Your task to perform on an android device: change the clock style Image 0: 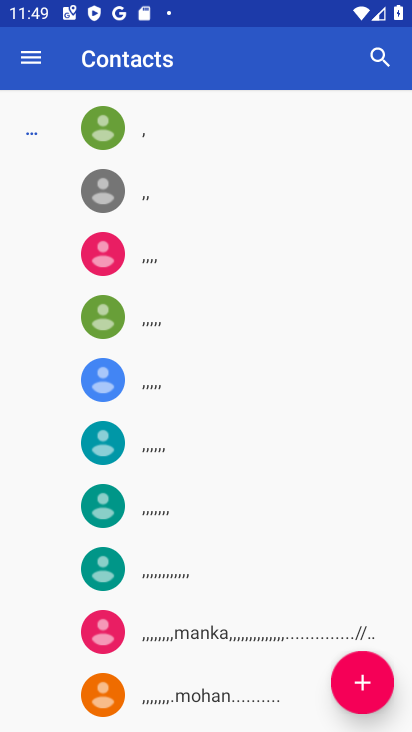
Step 0: press home button
Your task to perform on an android device: change the clock style Image 1: 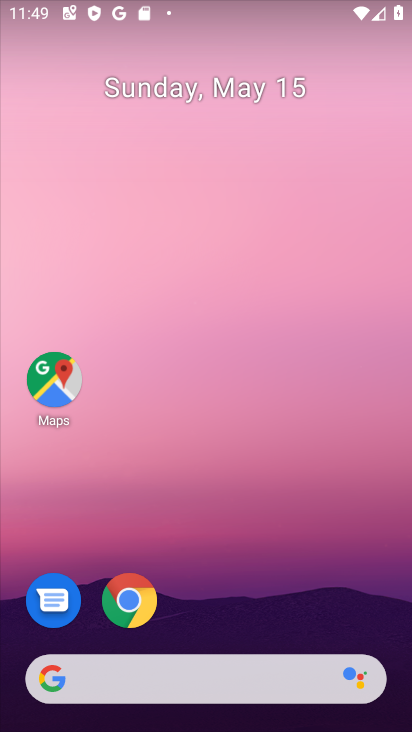
Step 1: drag from (179, 667) to (207, 91)
Your task to perform on an android device: change the clock style Image 2: 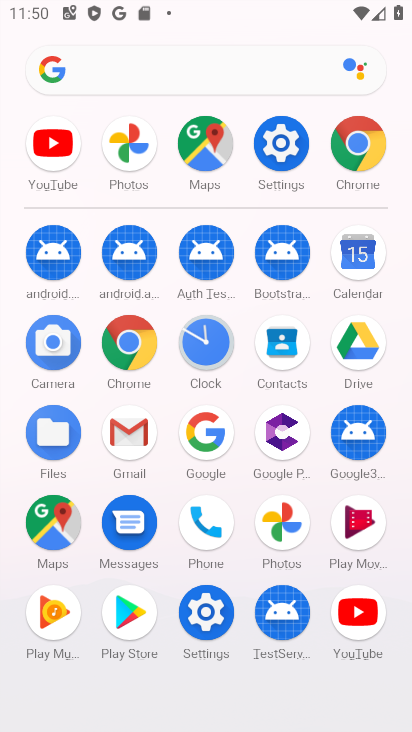
Step 2: click (204, 346)
Your task to perform on an android device: change the clock style Image 3: 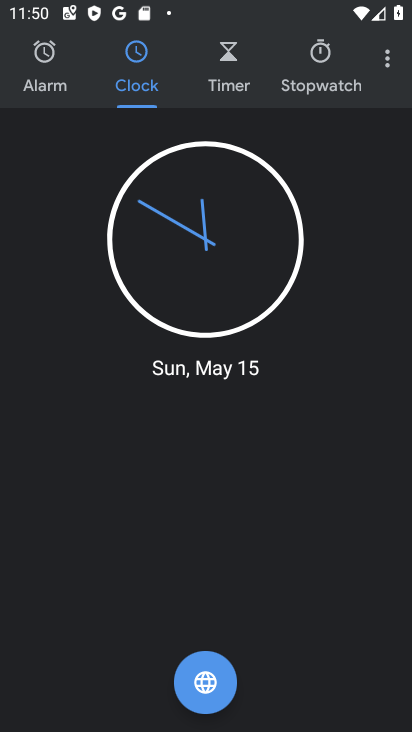
Step 3: click (382, 66)
Your task to perform on an android device: change the clock style Image 4: 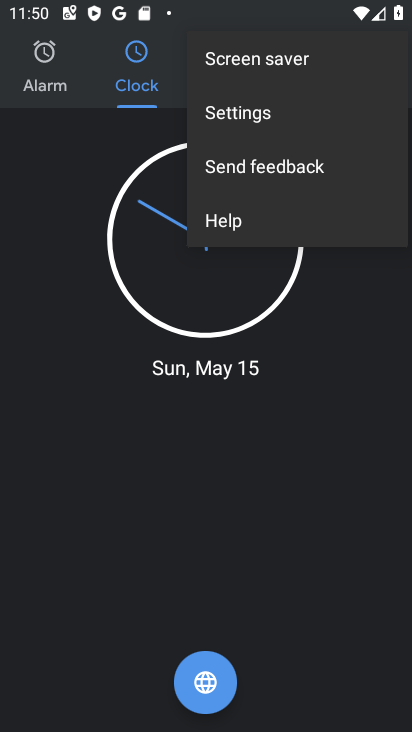
Step 4: click (243, 120)
Your task to perform on an android device: change the clock style Image 5: 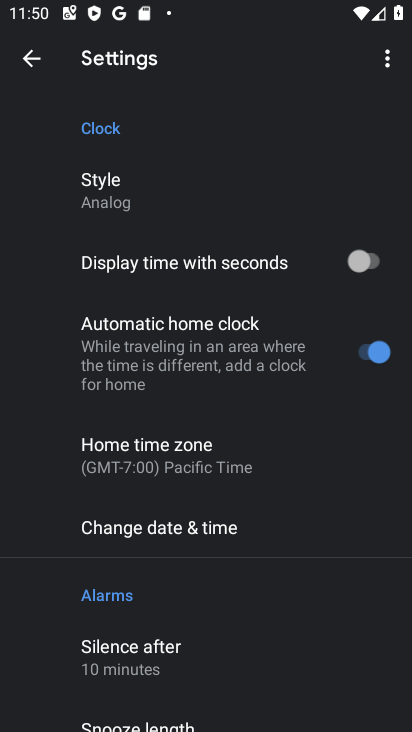
Step 5: click (119, 202)
Your task to perform on an android device: change the clock style Image 6: 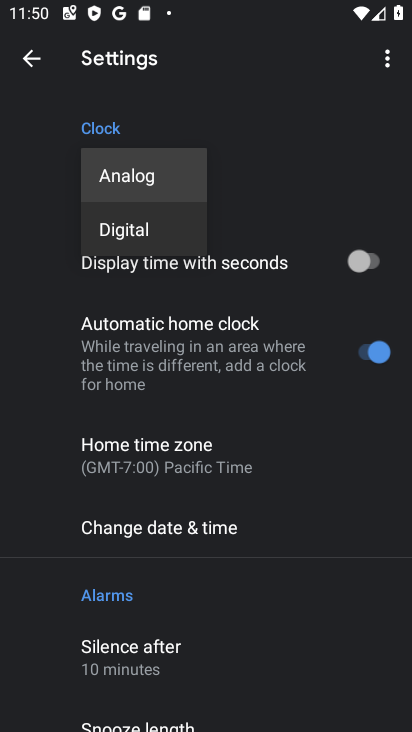
Step 6: click (153, 223)
Your task to perform on an android device: change the clock style Image 7: 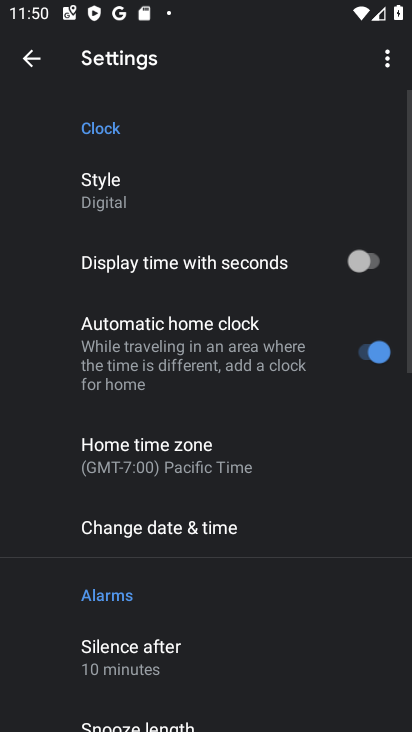
Step 7: task complete